Your task to perform on an android device: Show me popular videos on Youtube Image 0: 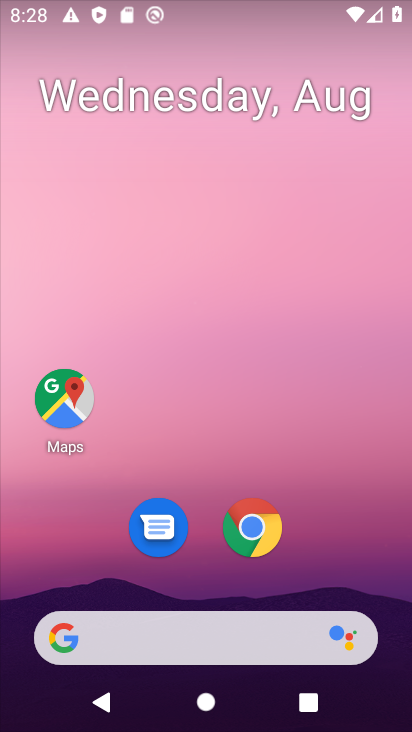
Step 0: click (256, 530)
Your task to perform on an android device: Show me popular videos on Youtube Image 1: 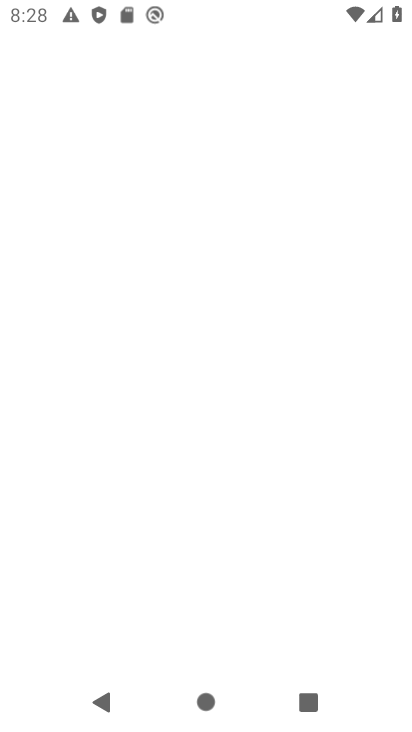
Step 1: press home button
Your task to perform on an android device: Show me popular videos on Youtube Image 2: 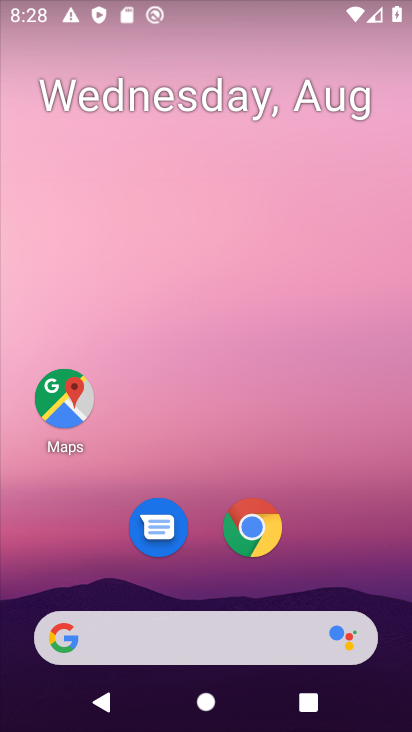
Step 2: drag from (193, 567) to (159, 42)
Your task to perform on an android device: Show me popular videos on Youtube Image 3: 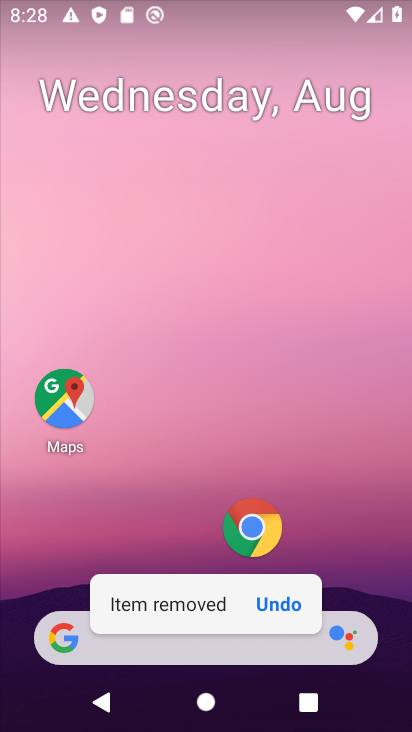
Step 3: click (275, 610)
Your task to perform on an android device: Show me popular videos on Youtube Image 4: 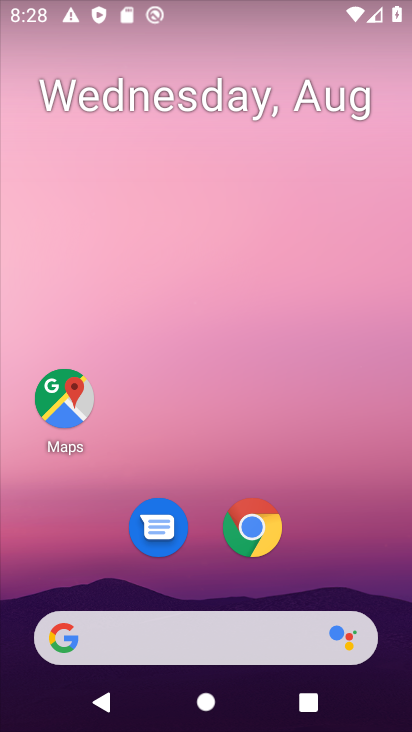
Step 4: drag from (205, 596) to (169, 71)
Your task to perform on an android device: Show me popular videos on Youtube Image 5: 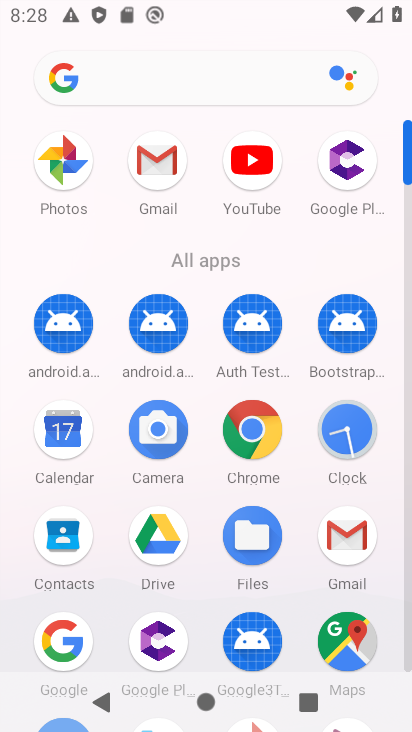
Step 5: click (251, 166)
Your task to perform on an android device: Show me popular videos on Youtube Image 6: 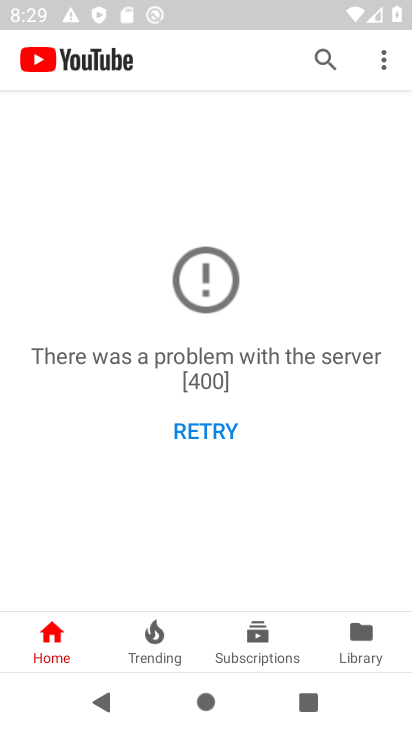
Step 6: task complete